Your task to perform on an android device: Open Google Image 0: 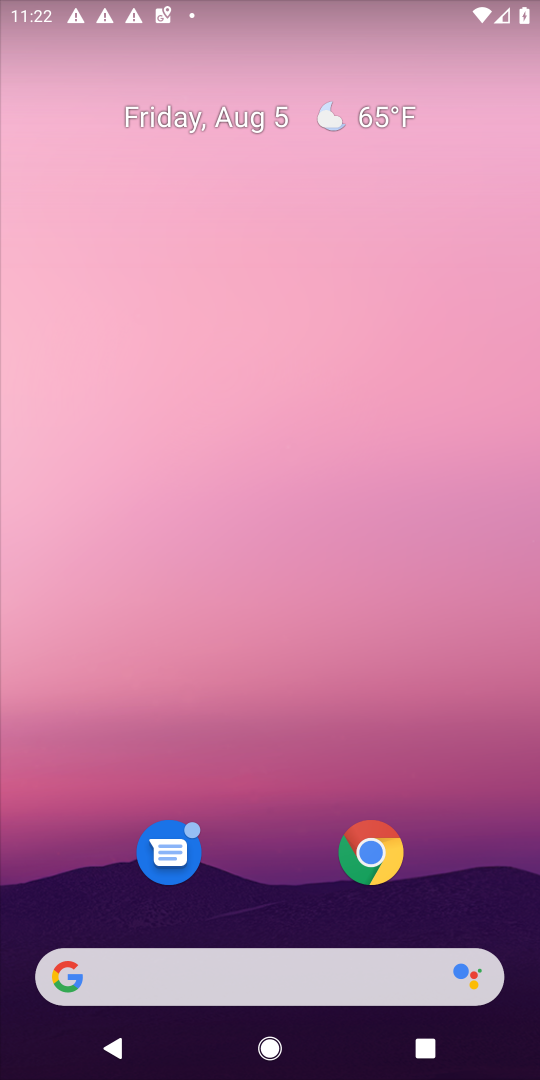
Step 0: press home button
Your task to perform on an android device: Open Google Image 1: 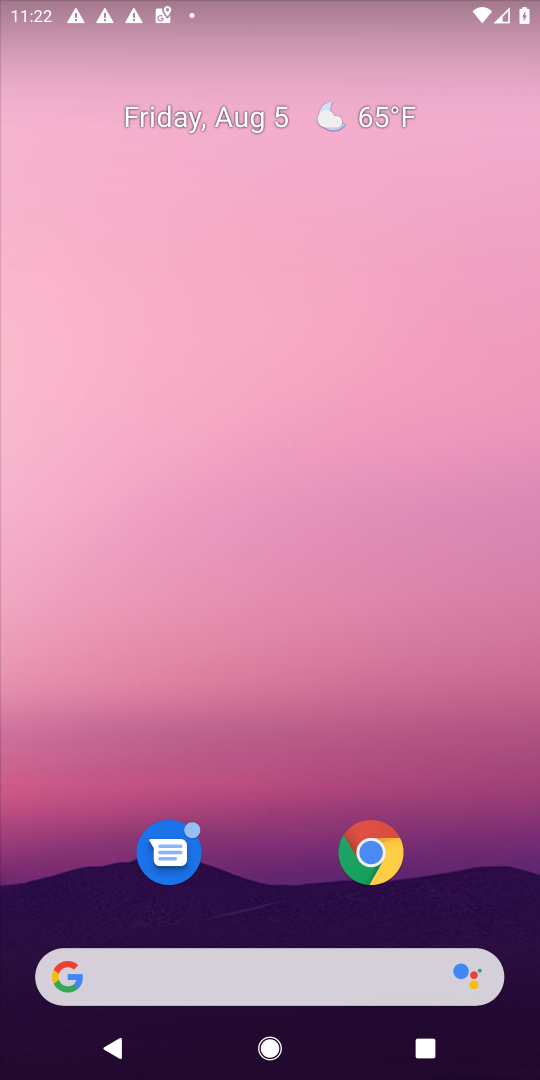
Step 1: drag from (317, 1007) to (315, 337)
Your task to perform on an android device: Open Google Image 2: 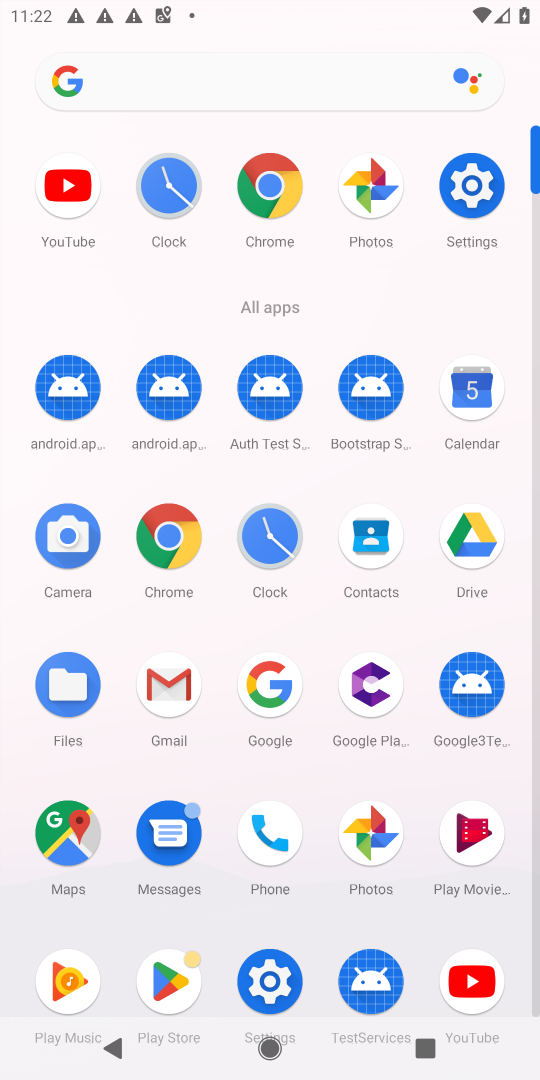
Step 2: click (66, 87)
Your task to perform on an android device: Open Google Image 3: 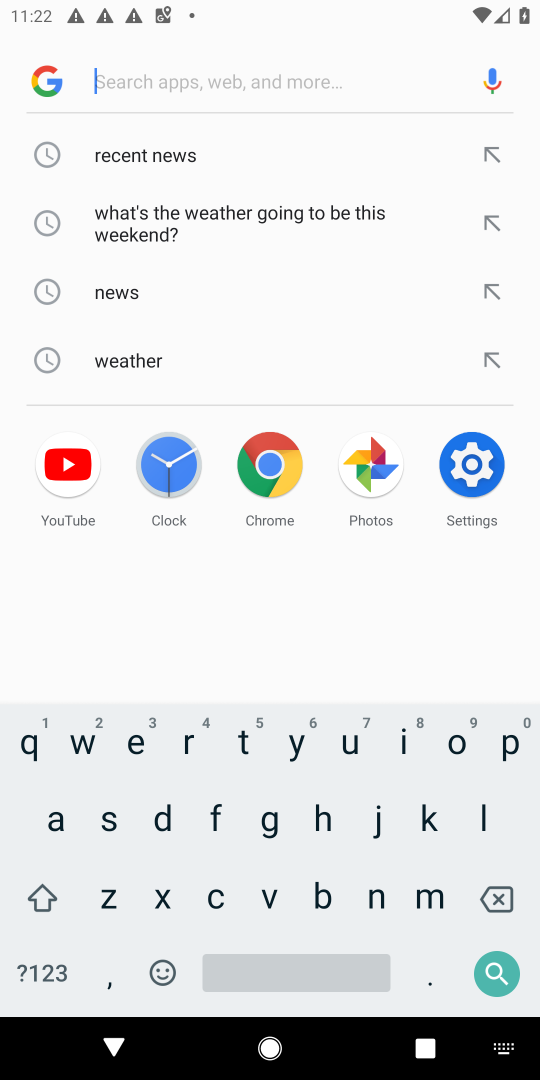
Step 3: click (48, 80)
Your task to perform on an android device: Open Google Image 4: 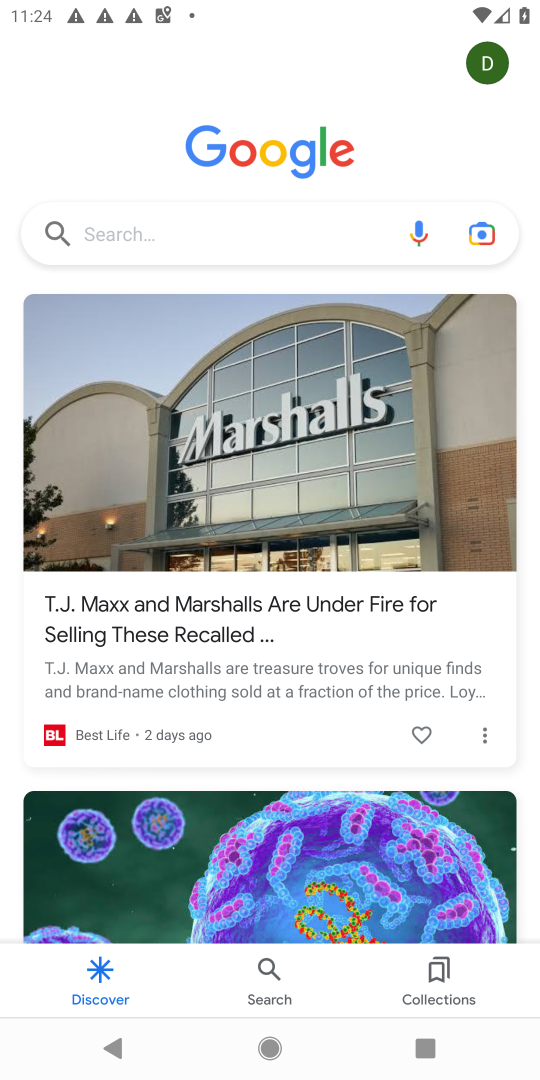
Step 4: press home button
Your task to perform on an android device: Open Google Image 5: 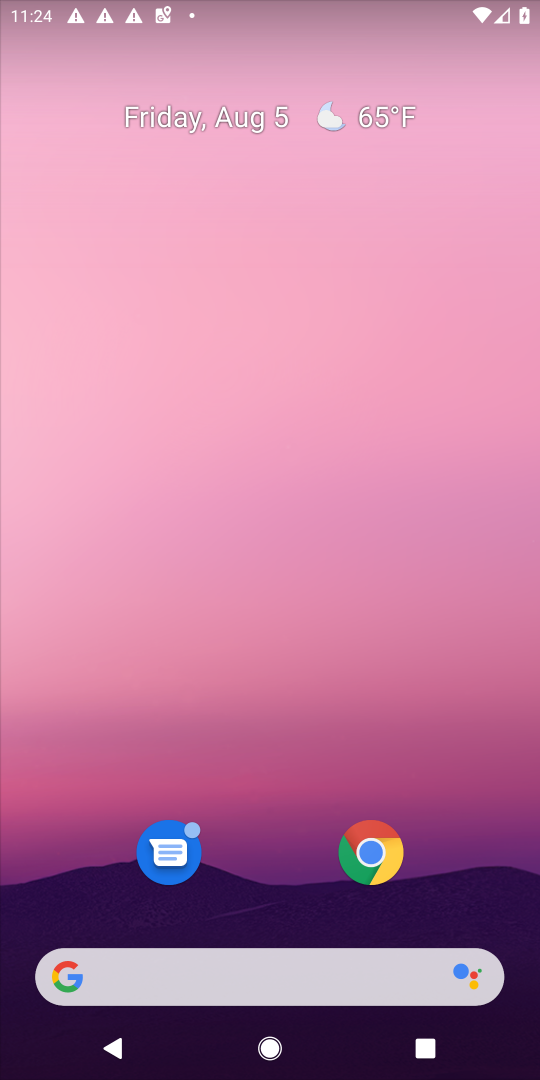
Step 5: drag from (323, 968) to (313, 243)
Your task to perform on an android device: Open Google Image 6: 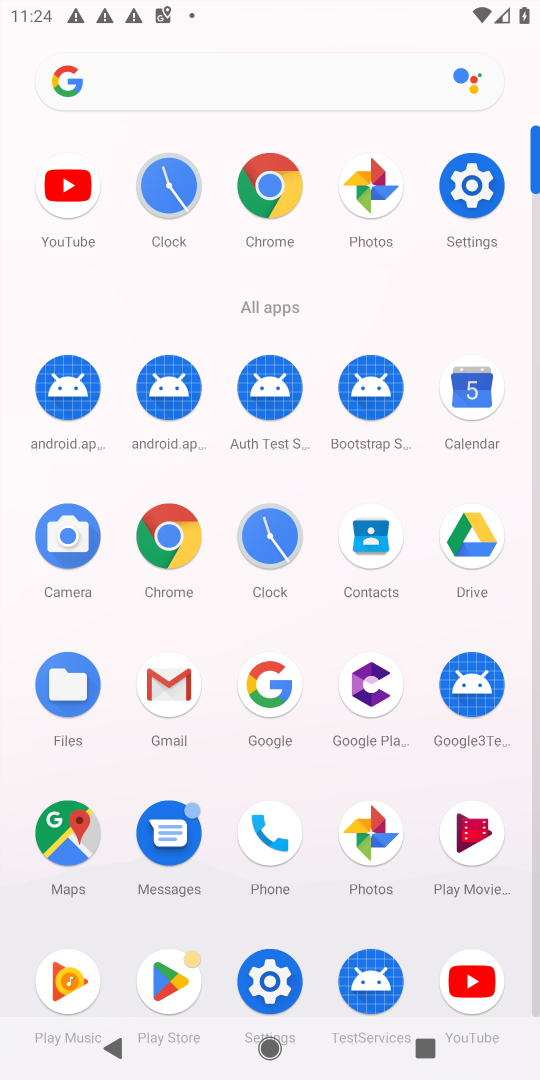
Step 6: click (56, 86)
Your task to perform on an android device: Open Google Image 7: 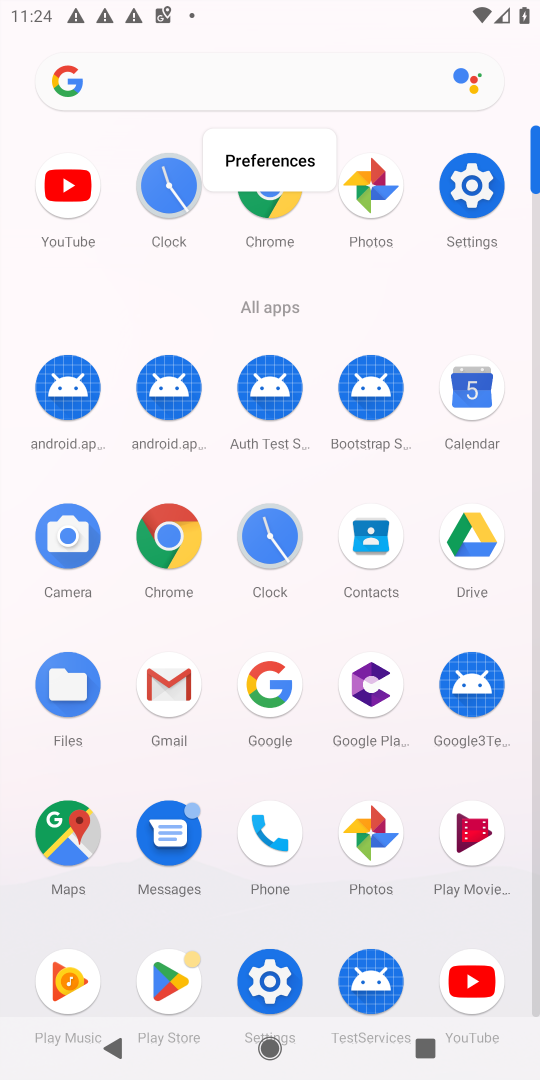
Step 7: click (63, 69)
Your task to perform on an android device: Open Google Image 8: 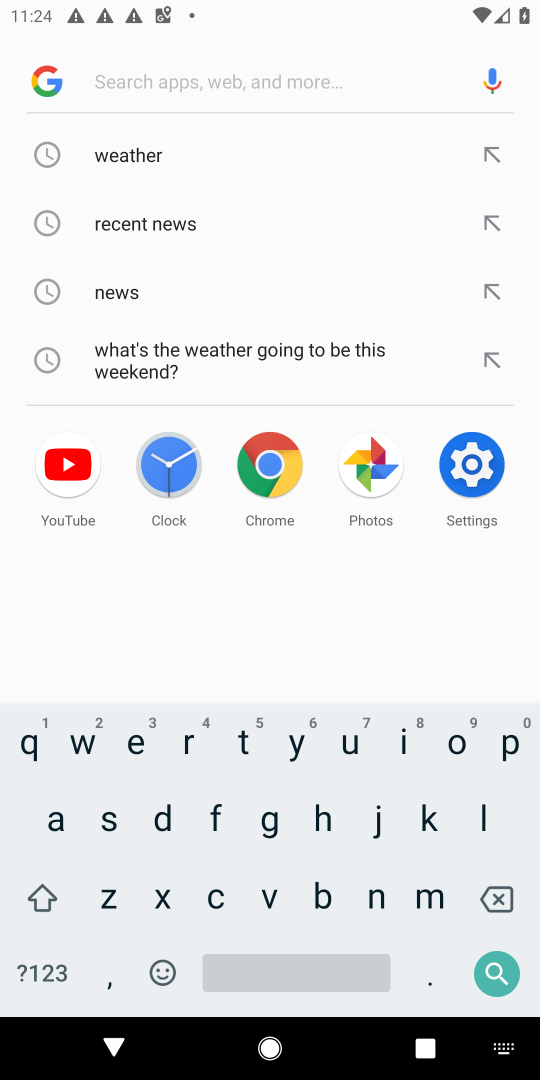
Step 8: click (56, 82)
Your task to perform on an android device: Open Google Image 9: 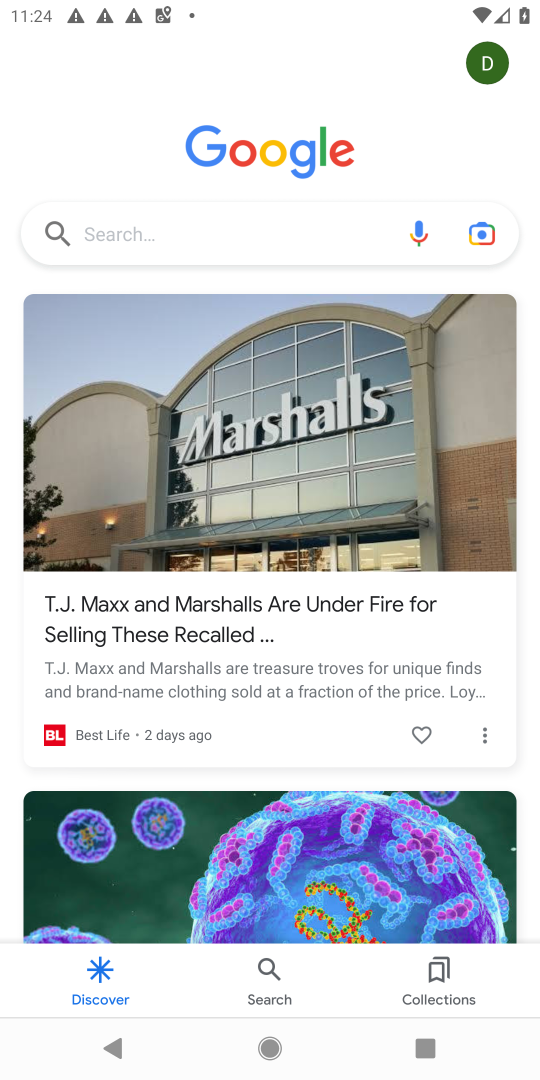
Step 9: task complete